Your task to perform on an android device: Open the Play Movies app and select the watchlist tab. Image 0: 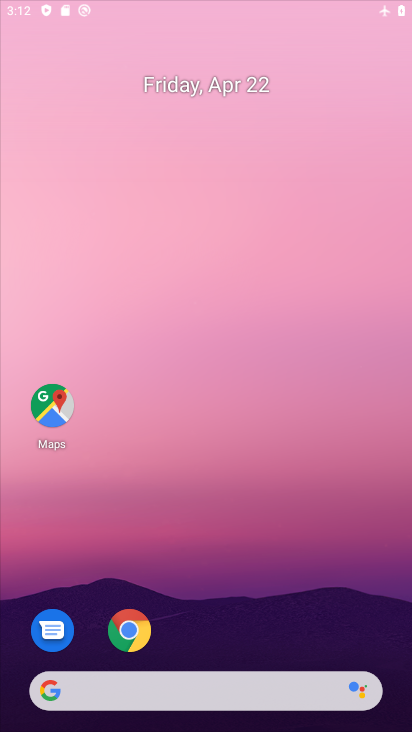
Step 0: click (337, 90)
Your task to perform on an android device: Open the Play Movies app and select the watchlist tab. Image 1: 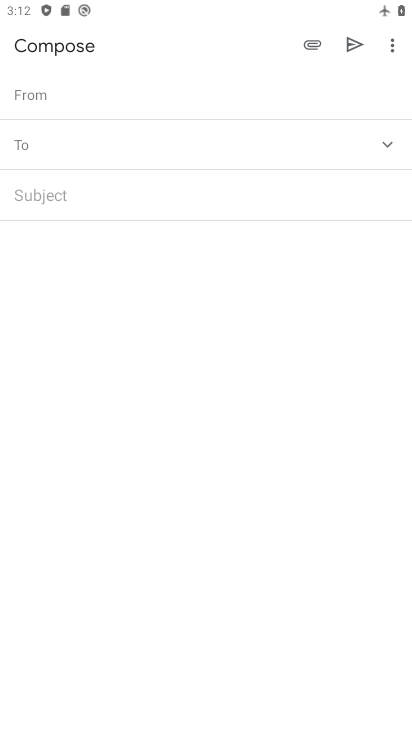
Step 1: drag from (346, 5) to (350, 177)
Your task to perform on an android device: Open the Play Movies app and select the watchlist tab. Image 2: 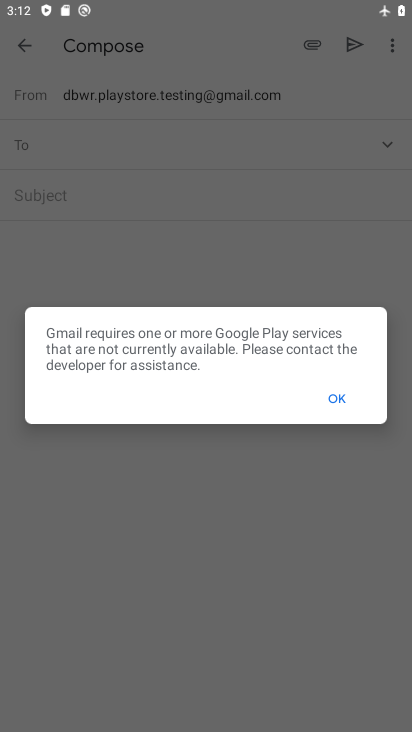
Step 2: click (345, 408)
Your task to perform on an android device: Open the Play Movies app and select the watchlist tab. Image 3: 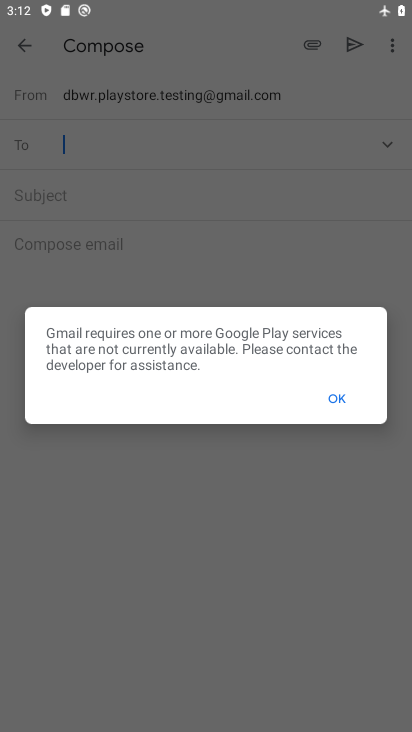
Step 3: click (333, 401)
Your task to perform on an android device: Open the Play Movies app and select the watchlist tab. Image 4: 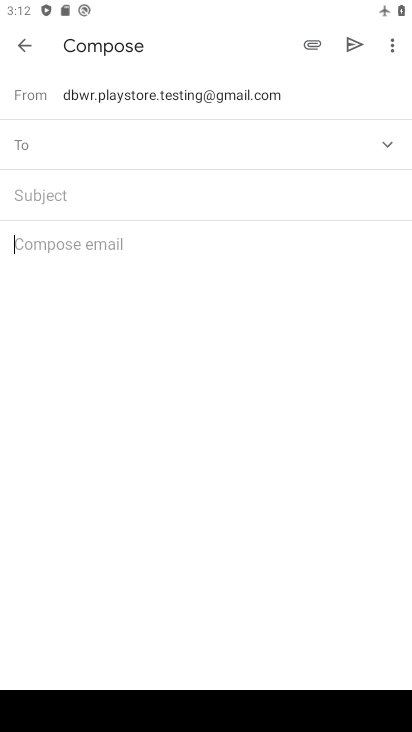
Step 4: press home button
Your task to perform on an android device: Open the Play Movies app and select the watchlist tab. Image 5: 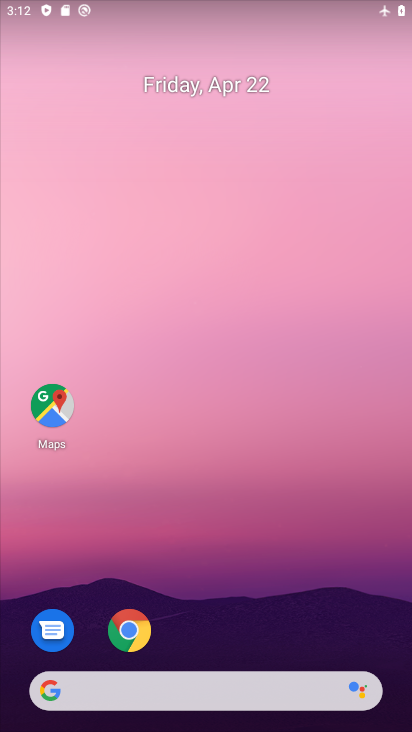
Step 5: drag from (239, 651) to (300, 237)
Your task to perform on an android device: Open the Play Movies app and select the watchlist tab. Image 6: 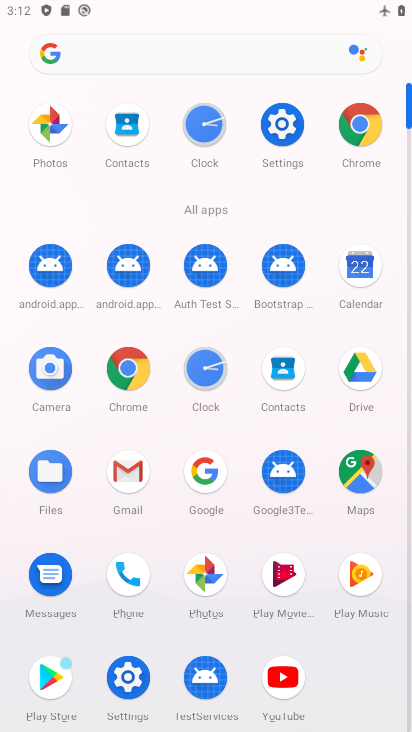
Step 6: click (296, 584)
Your task to perform on an android device: Open the Play Movies app and select the watchlist tab. Image 7: 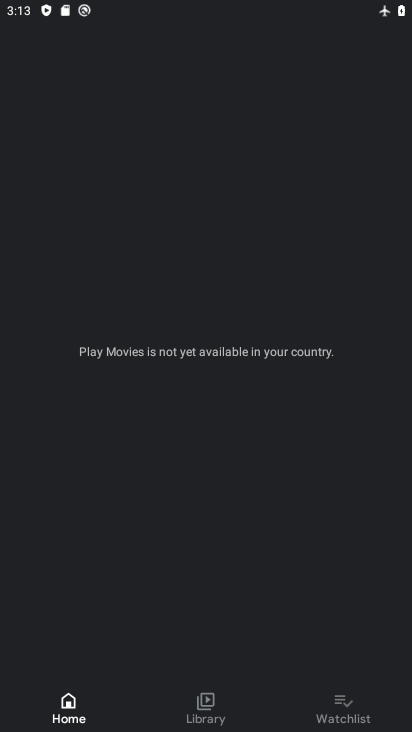
Step 7: click (349, 701)
Your task to perform on an android device: Open the Play Movies app and select the watchlist tab. Image 8: 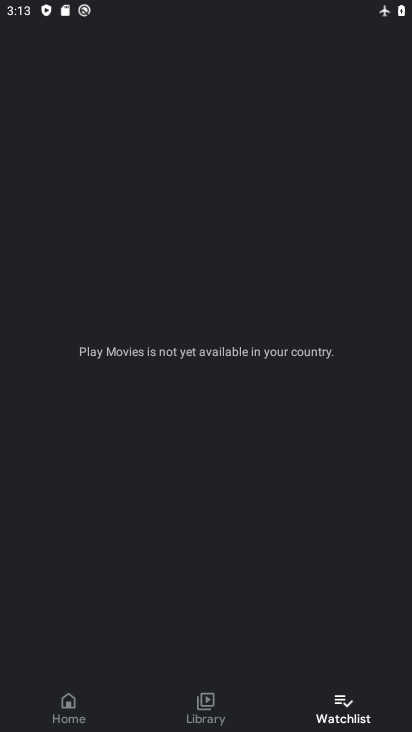
Step 8: task complete